Your task to perform on an android device: Open the Play Movies app and select the watchlist tab. Image 0: 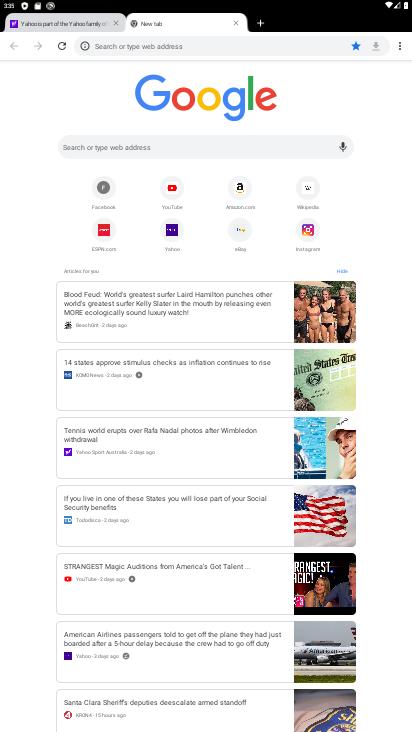
Step 0: press home button
Your task to perform on an android device: Open the Play Movies app and select the watchlist tab. Image 1: 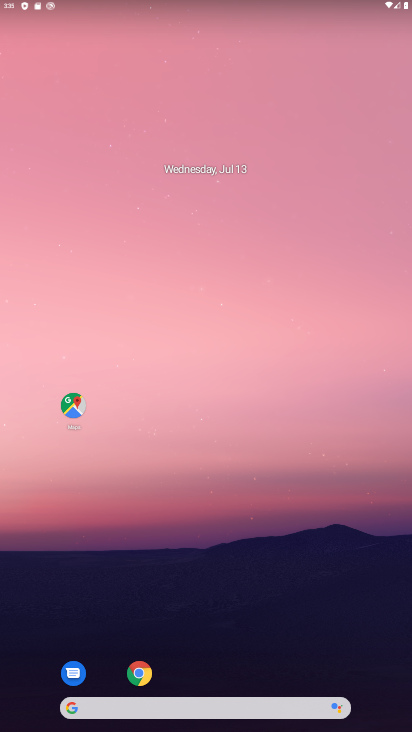
Step 1: drag from (207, 698) to (256, 277)
Your task to perform on an android device: Open the Play Movies app and select the watchlist tab. Image 2: 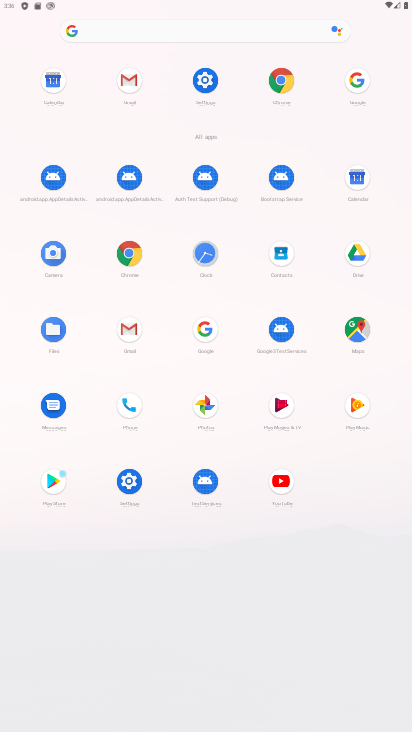
Step 2: click (282, 409)
Your task to perform on an android device: Open the Play Movies app and select the watchlist tab. Image 3: 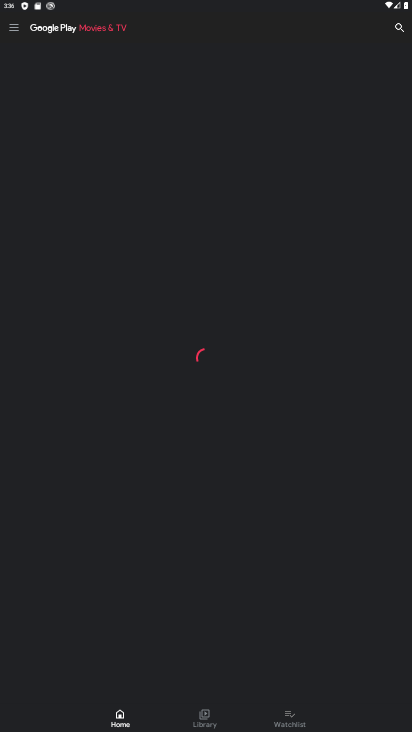
Step 3: click (292, 723)
Your task to perform on an android device: Open the Play Movies app and select the watchlist tab. Image 4: 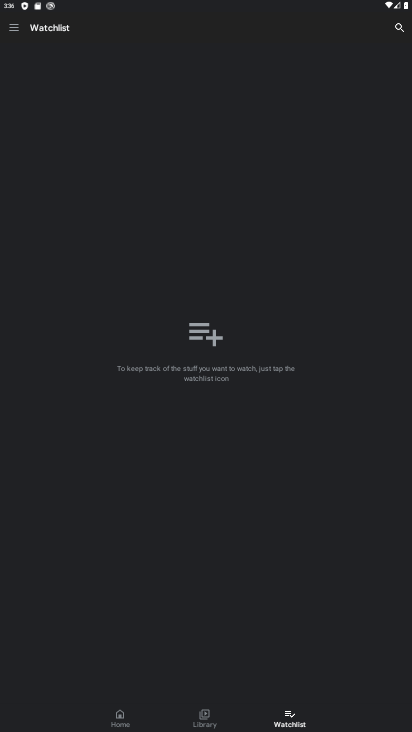
Step 4: task complete